Your task to perform on an android device: Do I have any events this weekend? Image 0: 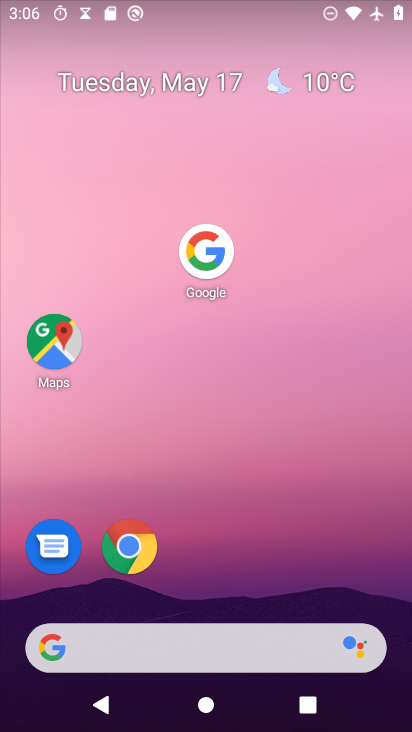
Step 0: press home button
Your task to perform on an android device: Do I have any events this weekend? Image 1: 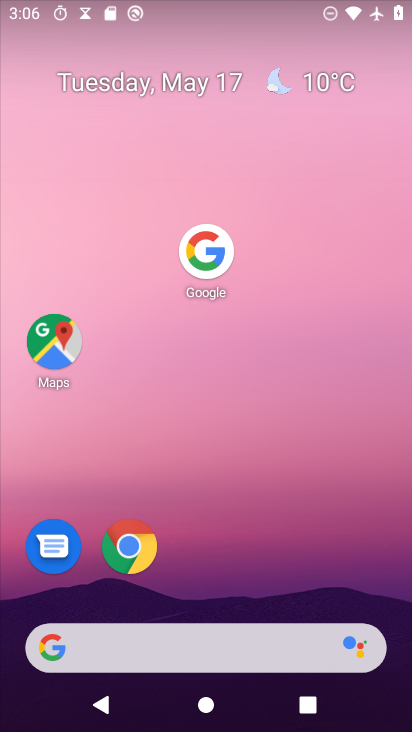
Step 1: drag from (144, 651) to (237, 110)
Your task to perform on an android device: Do I have any events this weekend? Image 2: 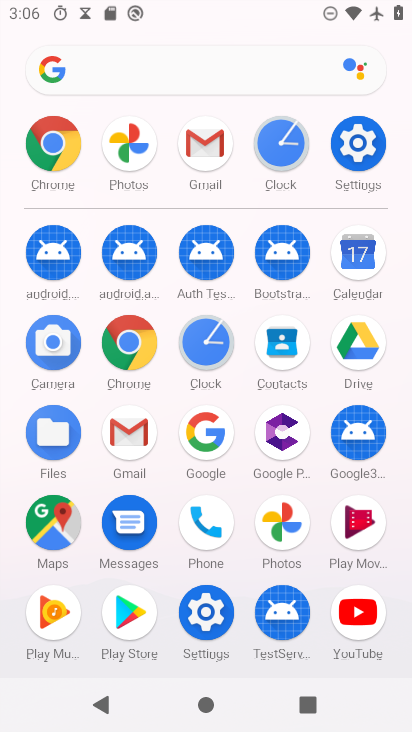
Step 2: click (355, 268)
Your task to perform on an android device: Do I have any events this weekend? Image 3: 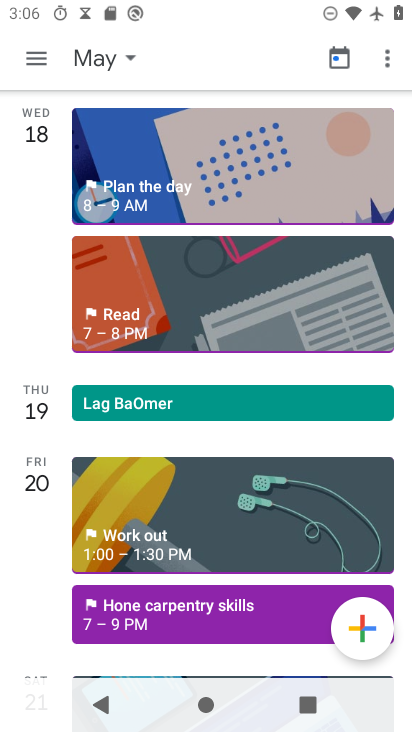
Step 3: click (95, 51)
Your task to perform on an android device: Do I have any events this weekend? Image 4: 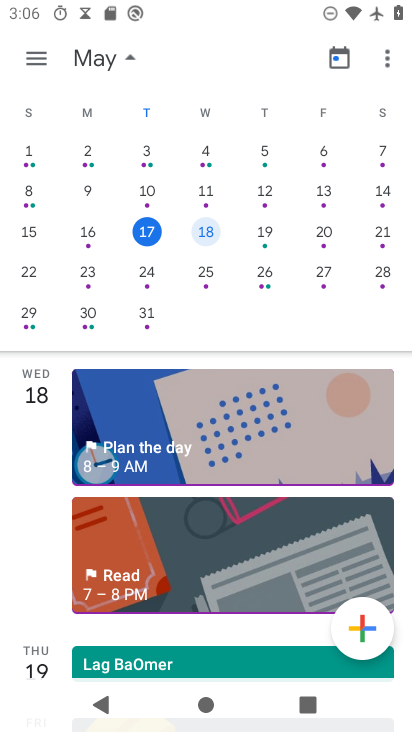
Step 4: click (380, 227)
Your task to perform on an android device: Do I have any events this weekend? Image 5: 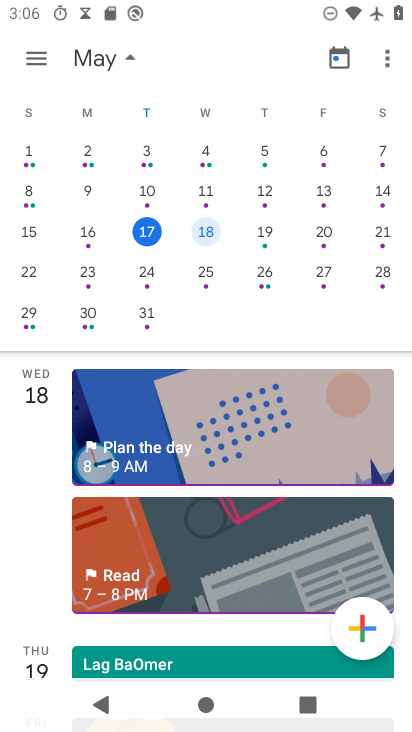
Step 5: click (385, 236)
Your task to perform on an android device: Do I have any events this weekend? Image 6: 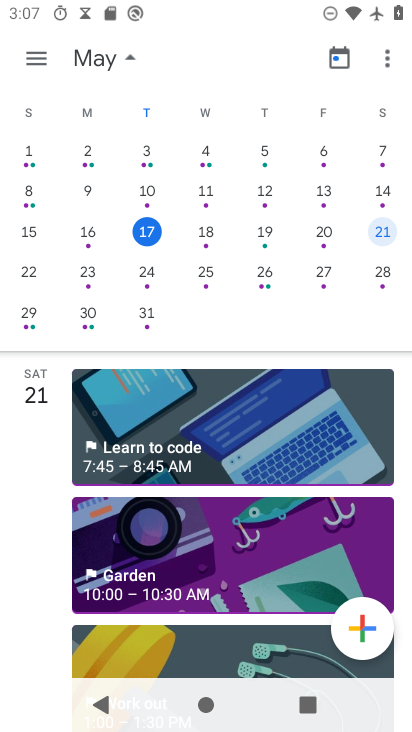
Step 6: click (39, 55)
Your task to perform on an android device: Do I have any events this weekend? Image 7: 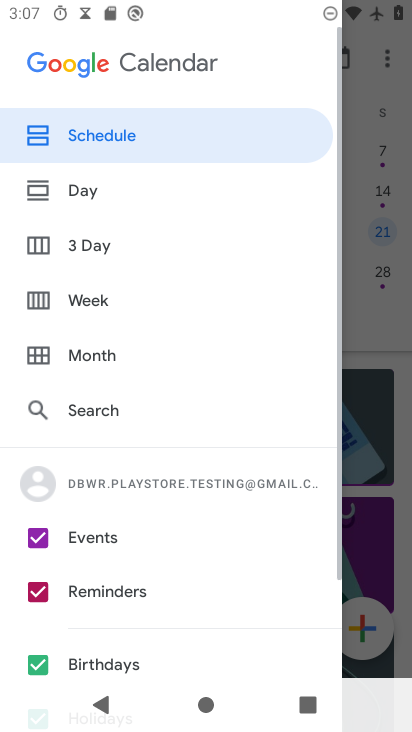
Step 7: click (92, 135)
Your task to perform on an android device: Do I have any events this weekend? Image 8: 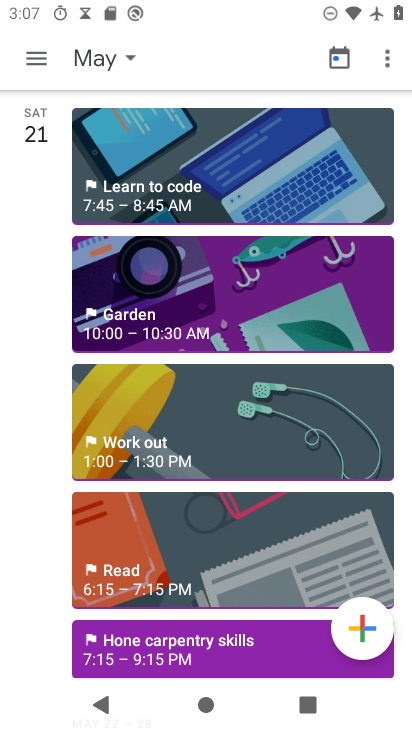
Step 8: click (199, 291)
Your task to perform on an android device: Do I have any events this weekend? Image 9: 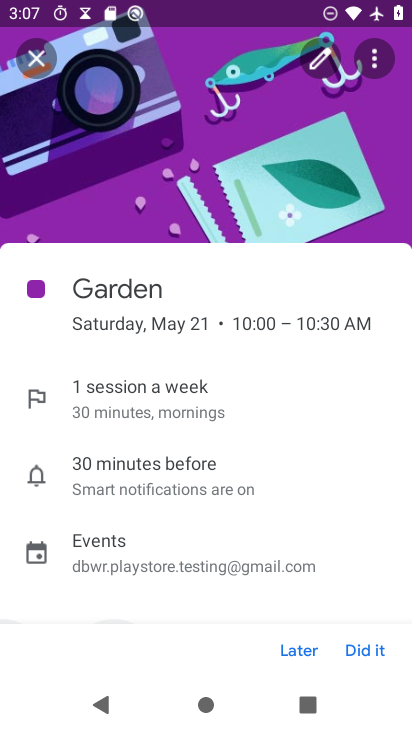
Step 9: task complete